Your task to perform on an android device: open app "Truecaller" (install if not already installed) Image 0: 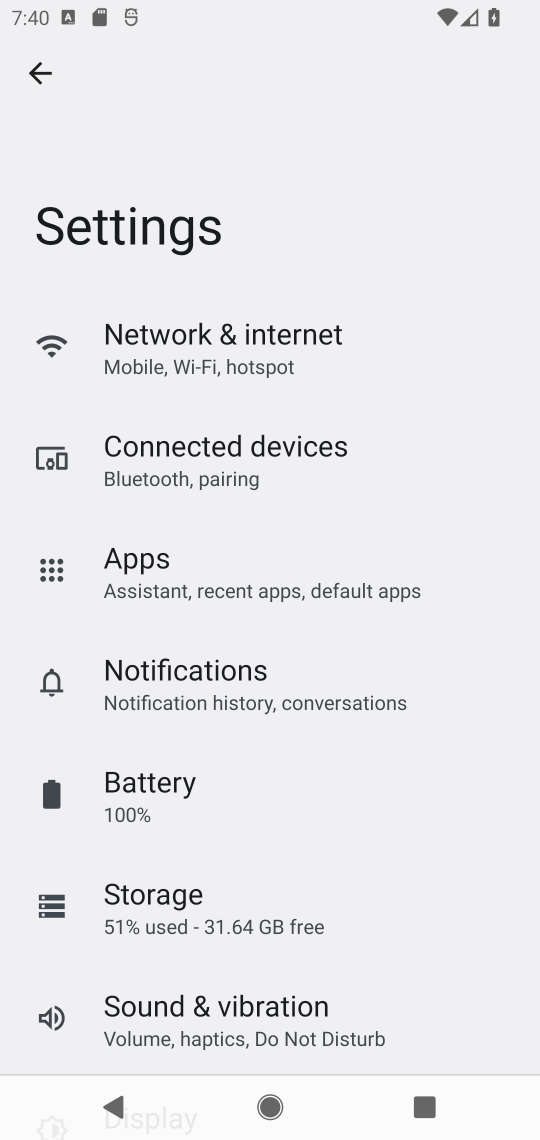
Step 0: press home button
Your task to perform on an android device: open app "Truecaller" (install if not already installed) Image 1: 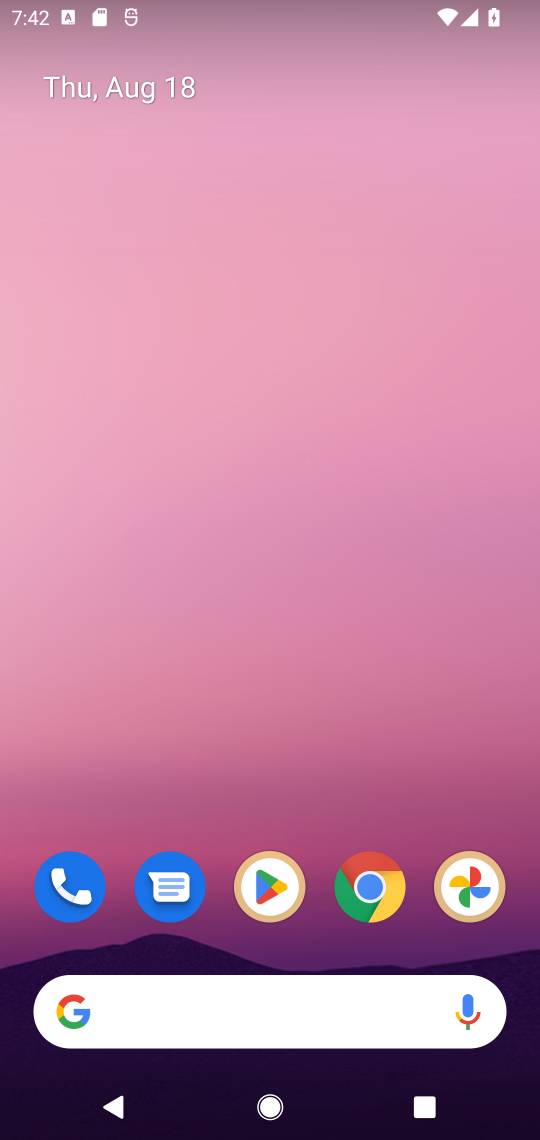
Step 1: click (262, 896)
Your task to perform on an android device: open app "Truecaller" (install if not already installed) Image 2: 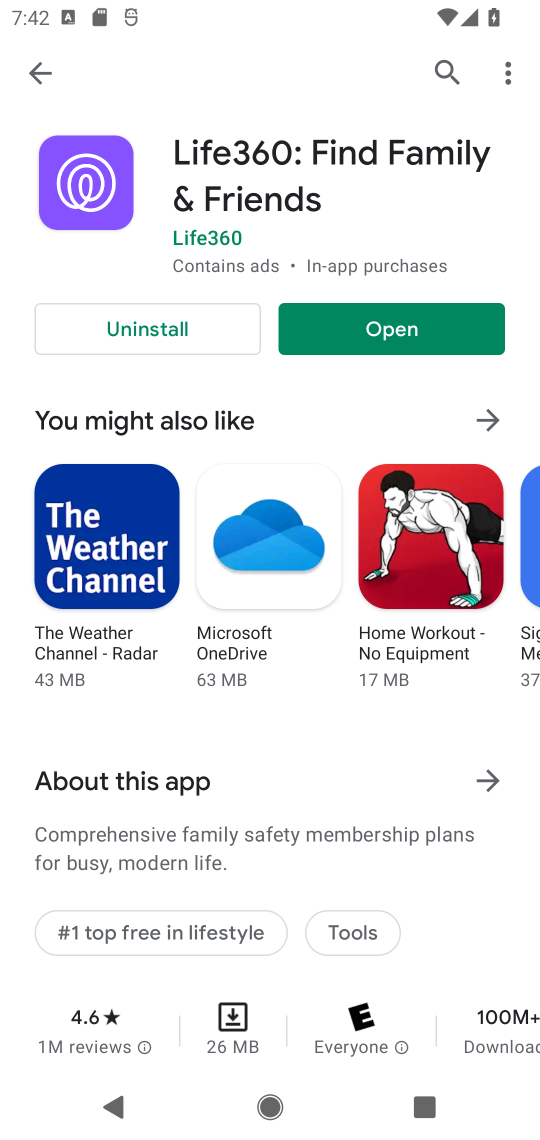
Step 2: click (367, 344)
Your task to perform on an android device: open app "Truecaller" (install if not already installed) Image 3: 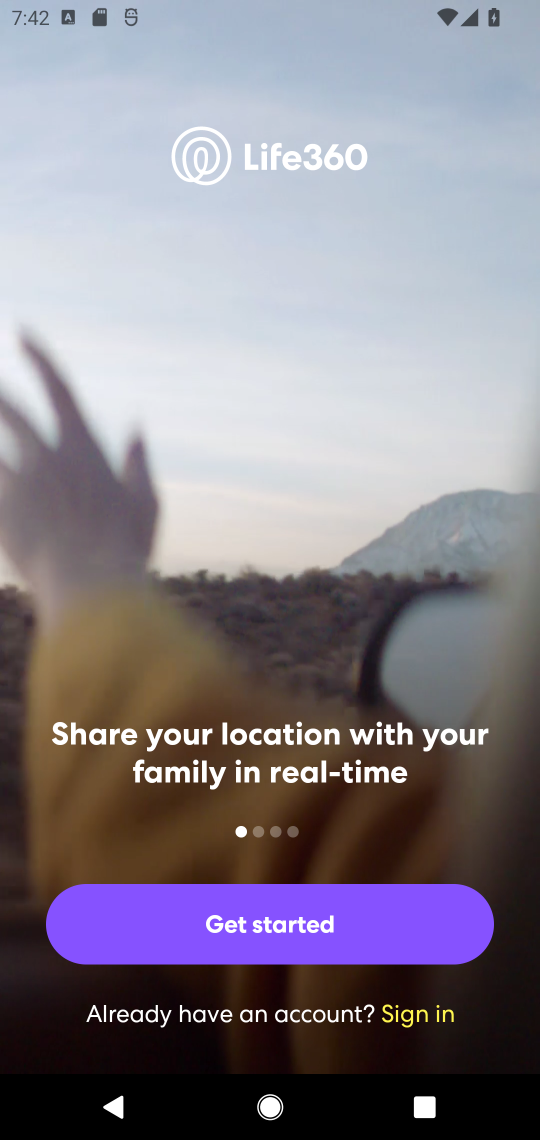
Step 3: press home button
Your task to perform on an android device: open app "Truecaller" (install if not already installed) Image 4: 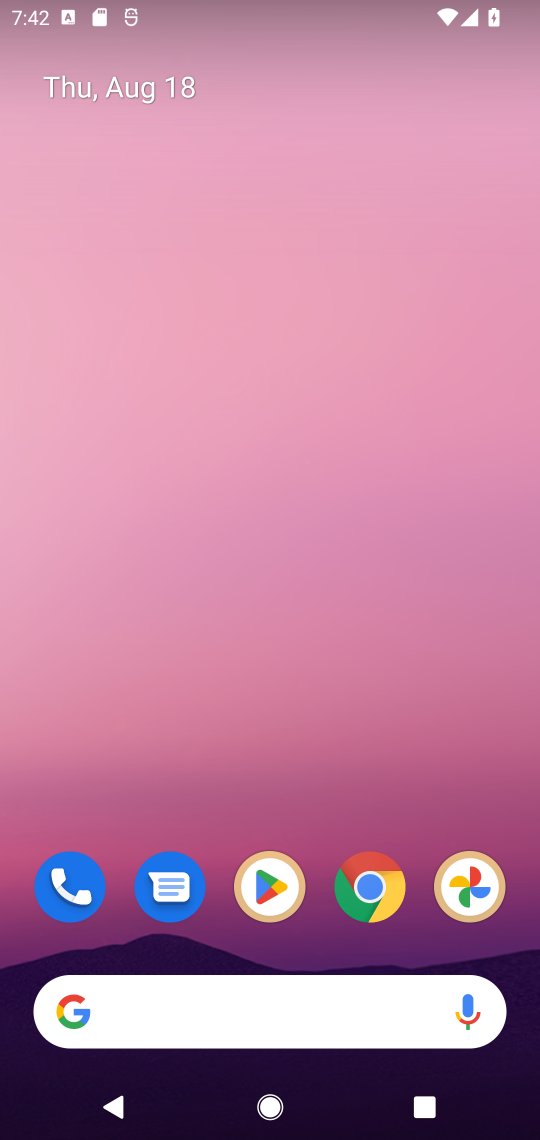
Step 4: drag from (312, 920) to (258, 59)
Your task to perform on an android device: open app "Truecaller" (install if not already installed) Image 5: 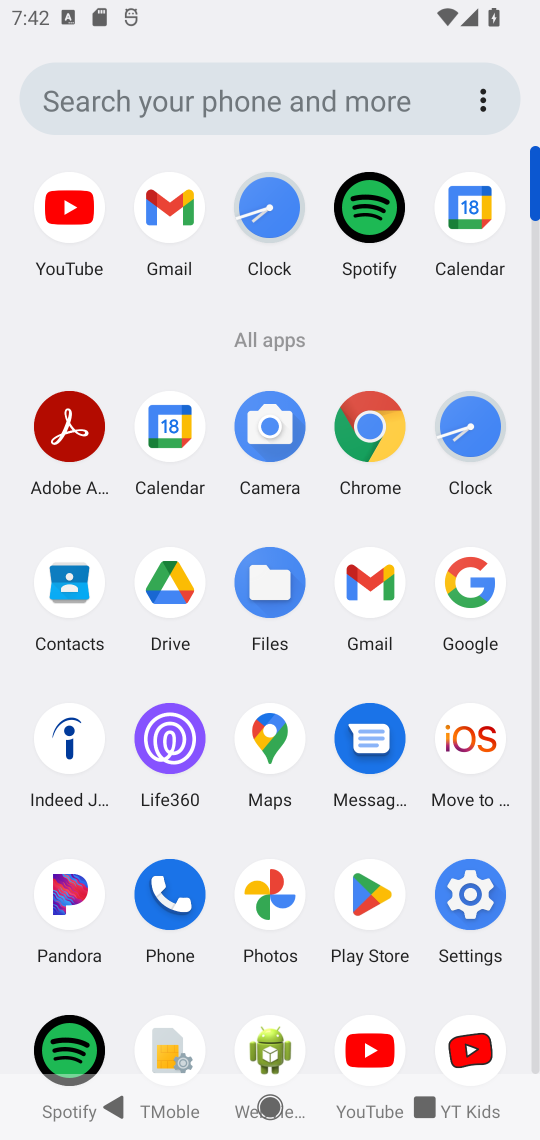
Step 5: click (376, 883)
Your task to perform on an android device: open app "Truecaller" (install if not already installed) Image 6: 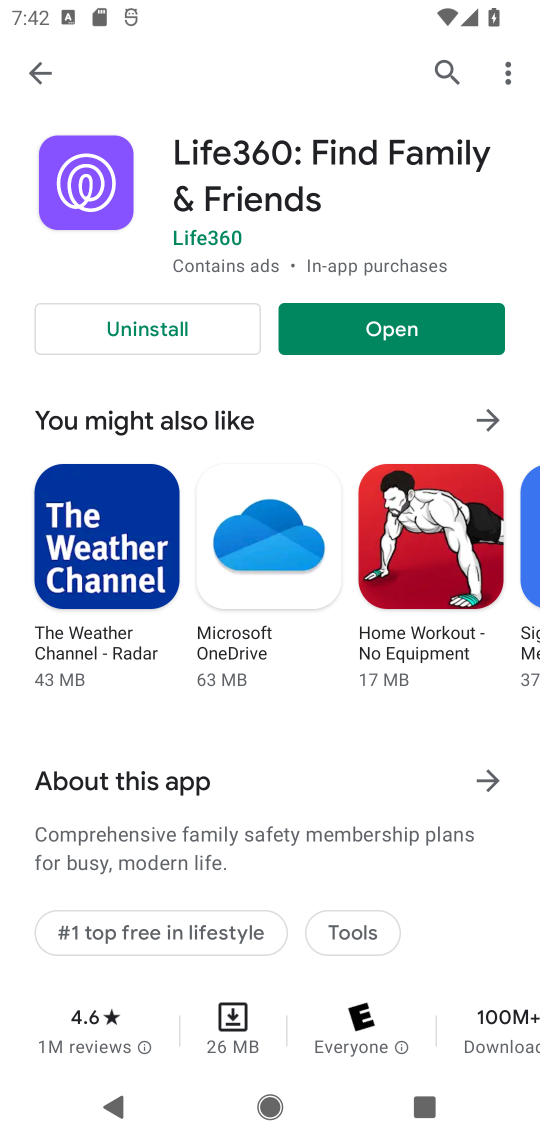
Step 6: click (448, 57)
Your task to perform on an android device: open app "Truecaller" (install if not already installed) Image 7: 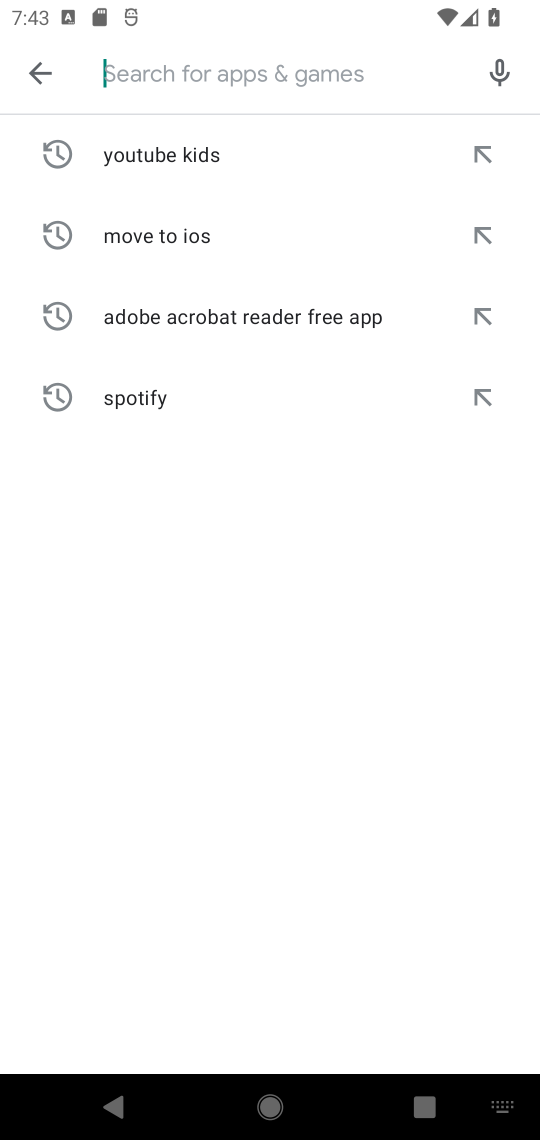
Step 7: type "Truecaller "
Your task to perform on an android device: open app "Truecaller" (install if not already installed) Image 8: 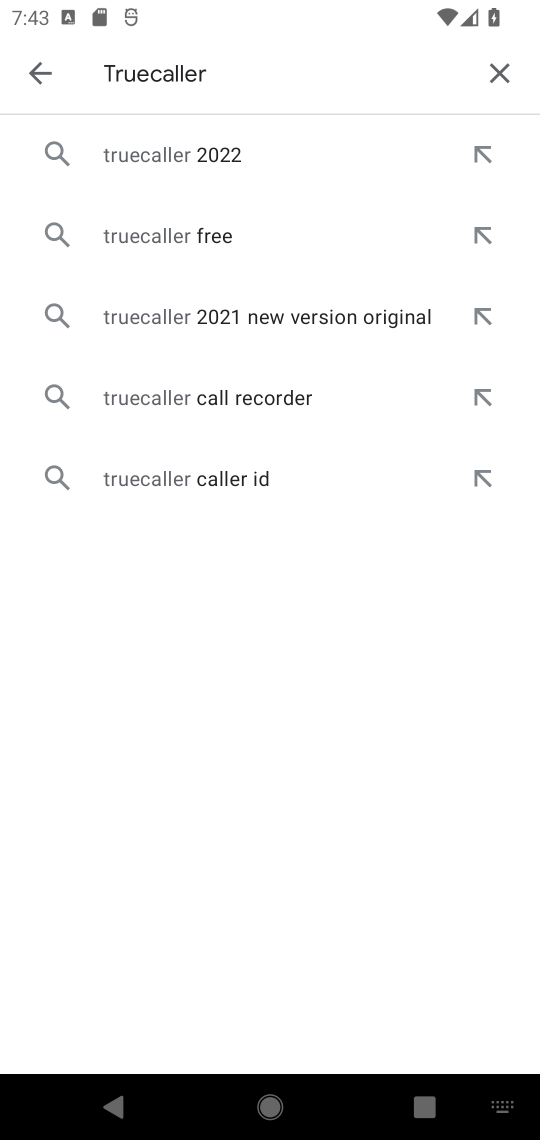
Step 8: click (153, 147)
Your task to perform on an android device: open app "Truecaller" (install if not already installed) Image 9: 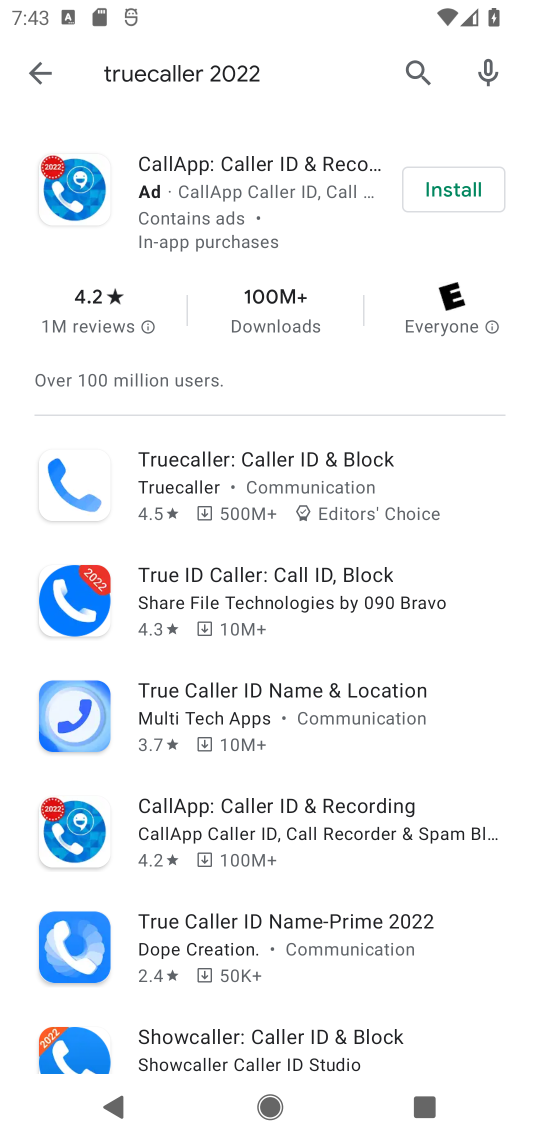
Step 9: click (301, 453)
Your task to perform on an android device: open app "Truecaller" (install if not already installed) Image 10: 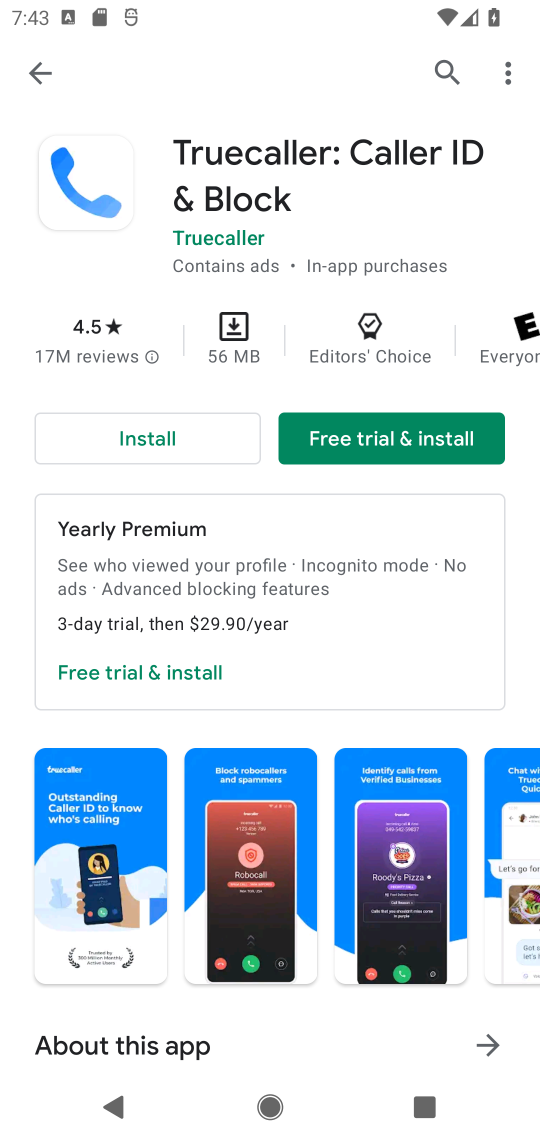
Step 10: click (104, 440)
Your task to perform on an android device: open app "Truecaller" (install if not already installed) Image 11: 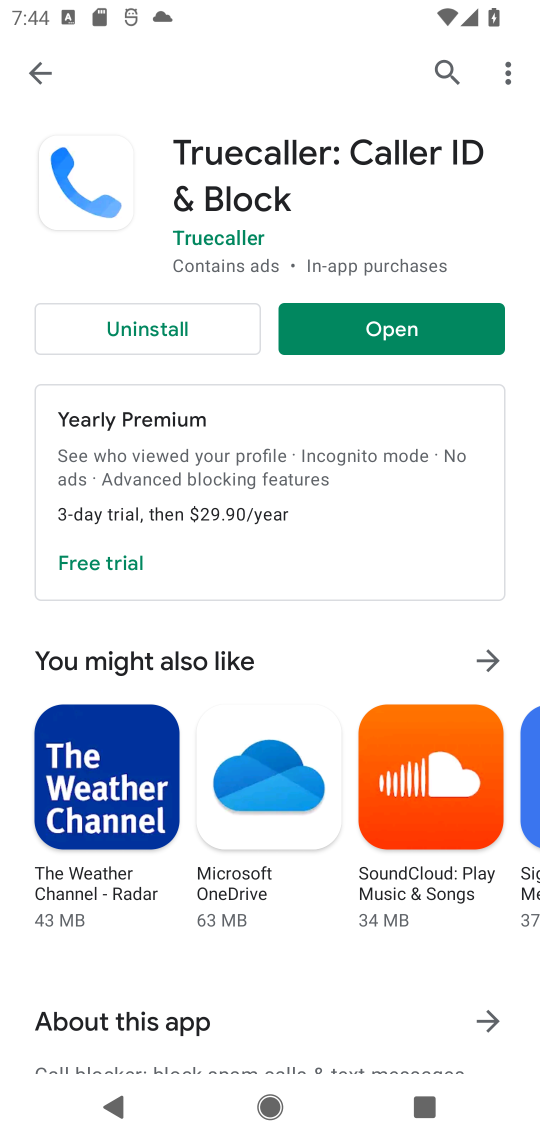
Step 11: click (405, 325)
Your task to perform on an android device: open app "Truecaller" (install if not already installed) Image 12: 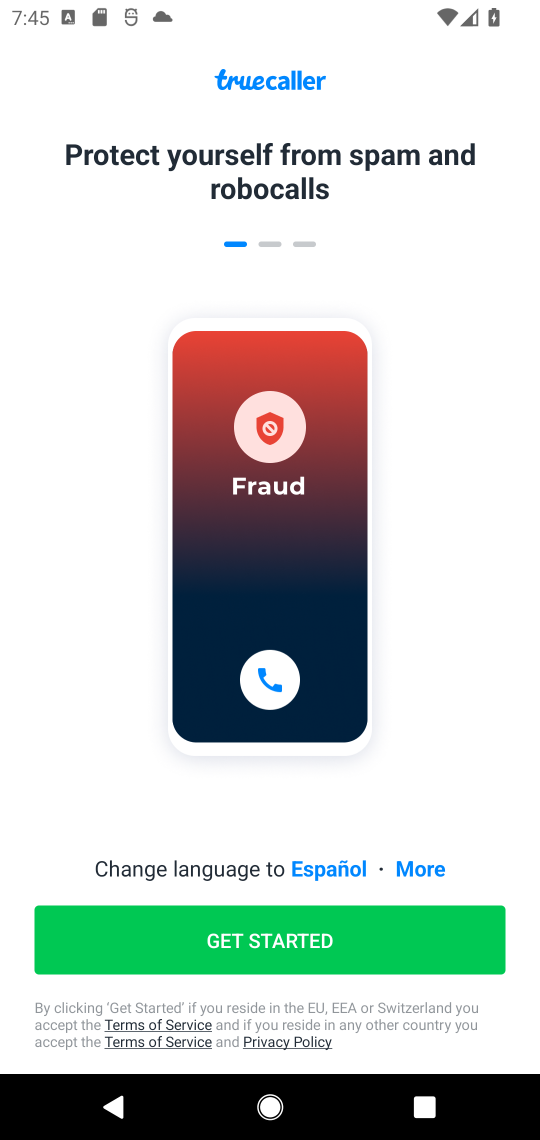
Step 12: task complete